Your task to perform on an android device: turn off javascript in the chrome app Image 0: 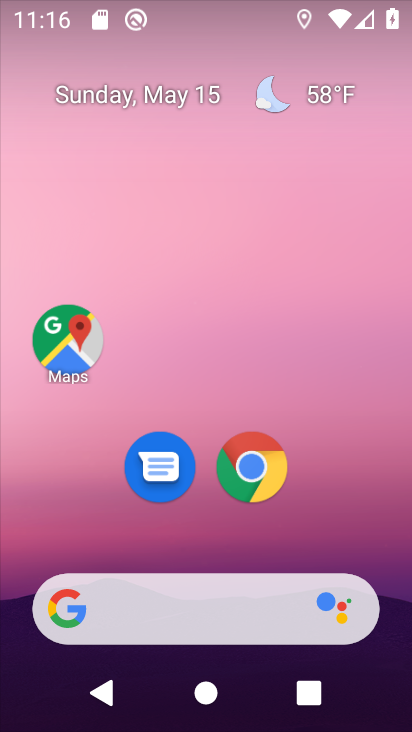
Step 0: press home button
Your task to perform on an android device: turn off javascript in the chrome app Image 1: 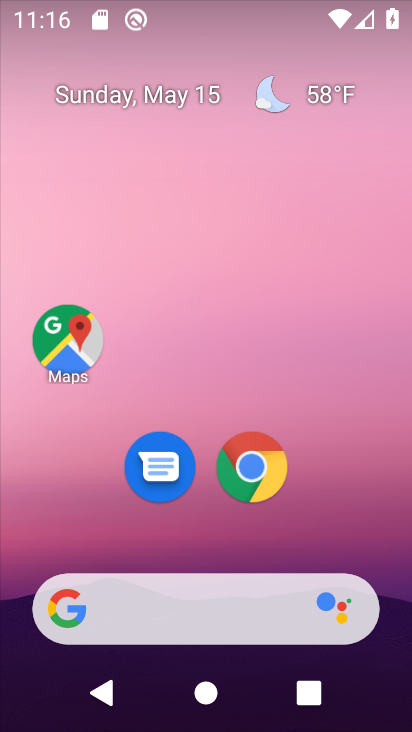
Step 1: drag from (211, 541) to (208, 33)
Your task to perform on an android device: turn off javascript in the chrome app Image 2: 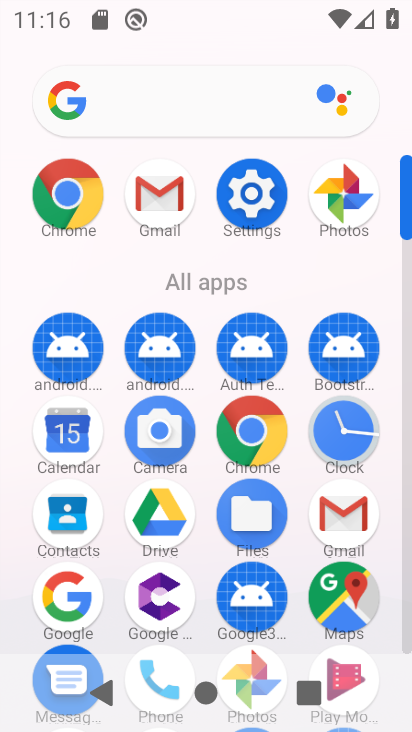
Step 2: click (253, 189)
Your task to perform on an android device: turn off javascript in the chrome app Image 3: 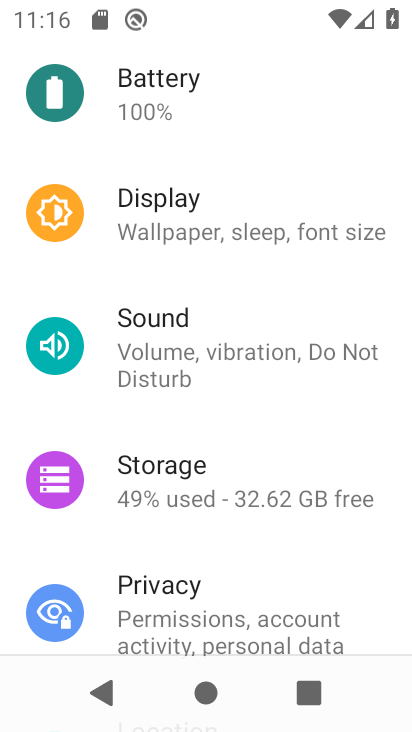
Step 3: press home button
Your task to perform on an android device: turn off javascript in the chrome app Image 4: 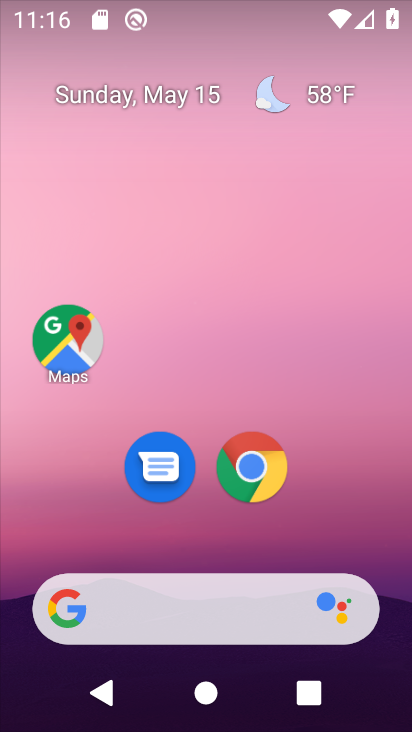
Step 4: click (247, 463)
Your task to perform on an android device: turn off javascript in the chrome app Image 5: 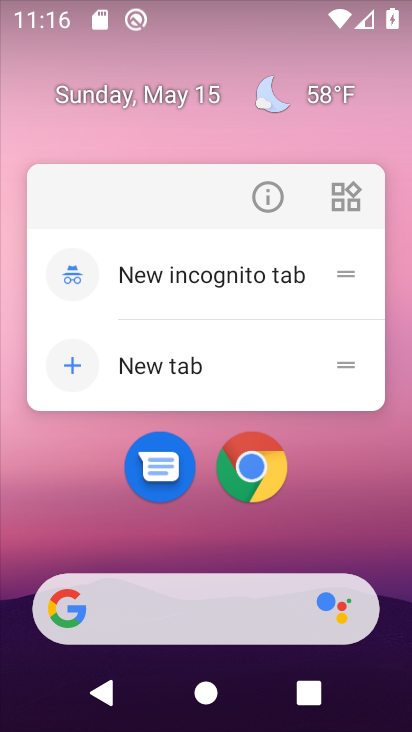
Step 5: click (248, 459)
Your task to perform on an android device: turn off javascript in the chrome app Image 6: 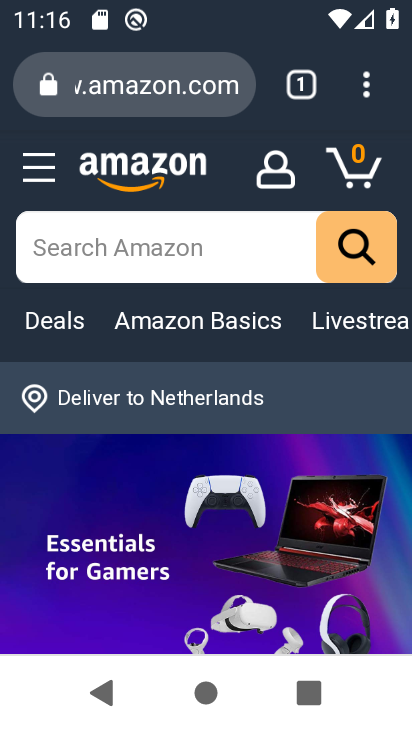
Step 6: click (354, 84)
Your task to perform on an android device: turn off javascript in the chrome app Image 7: 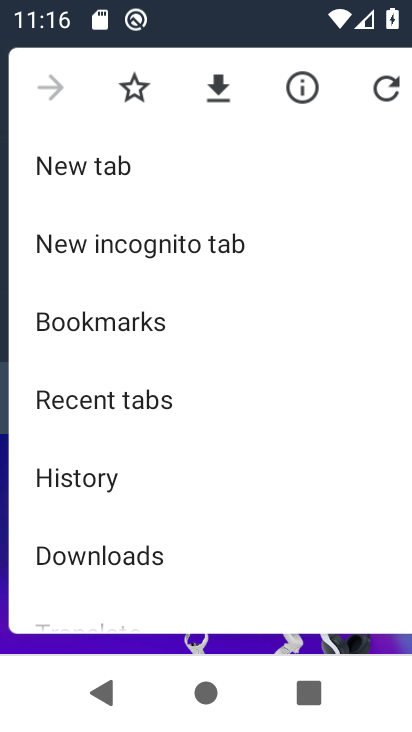
Step 7: drag from (192, 582) to (191, 135)
Your task to perform on an android device: turn off javascript in the chrome app Image 8: 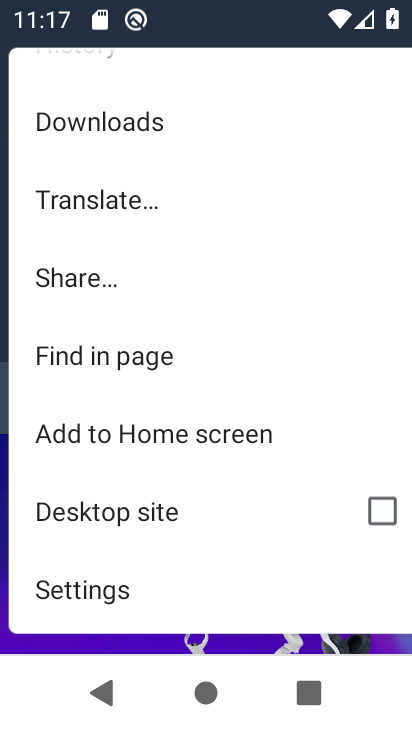
Step 8: click (136, 582)
Your task to perform on an android device: turn off javascript in the chrome app Image 9: 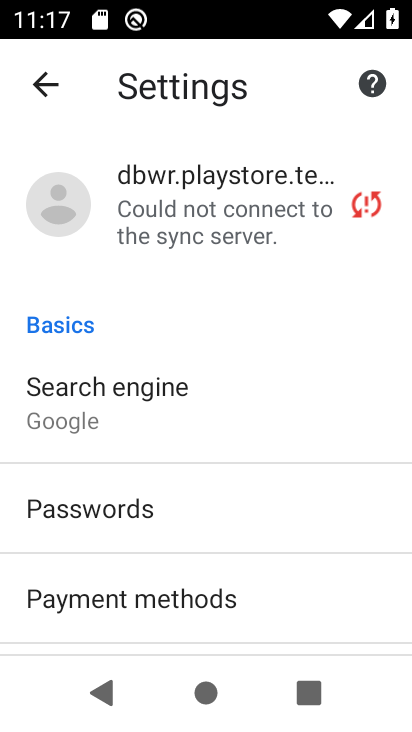
Step 9: drag from (266, 616) to (257, 222)
Your task to perform on an android device: turn off javascript in the chrome app Image 10: 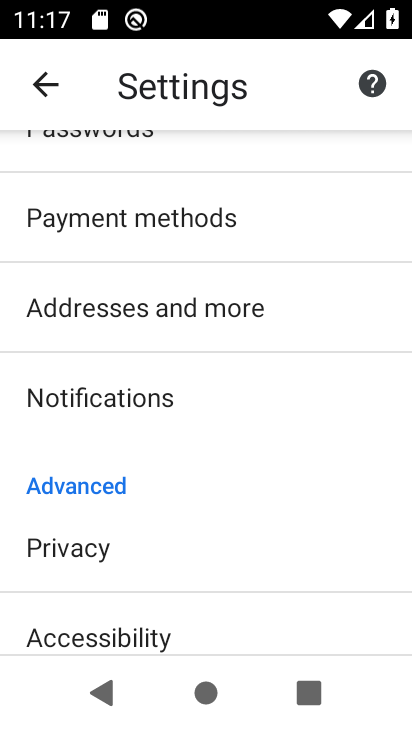
Step 10: drag from (206, 615) to (195, 191)
Your task to perform on an android device: turn off javascript in the chrome app Image 11: 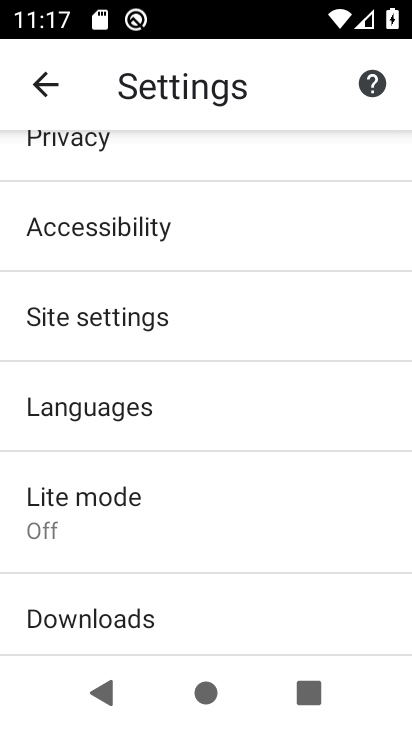
Step 11: click (175, 303)
Your task to perform on an android device: turn off javascript in the chrome app Image 12: 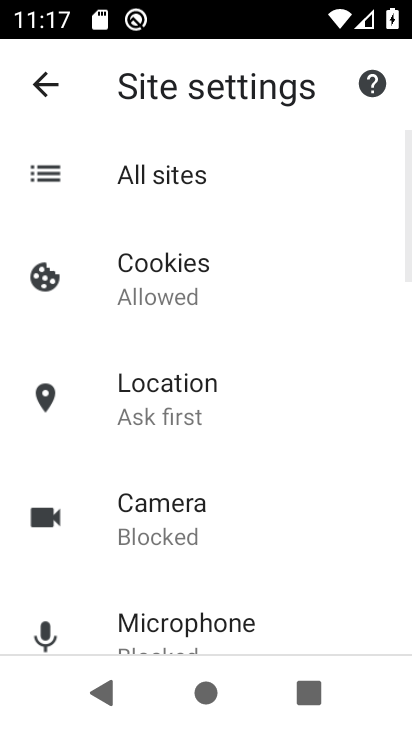
Step 12: drag from (218, 612) to (222, 107)
Your task to perform on an android device: turn off javascript in the chrome app Image 13: 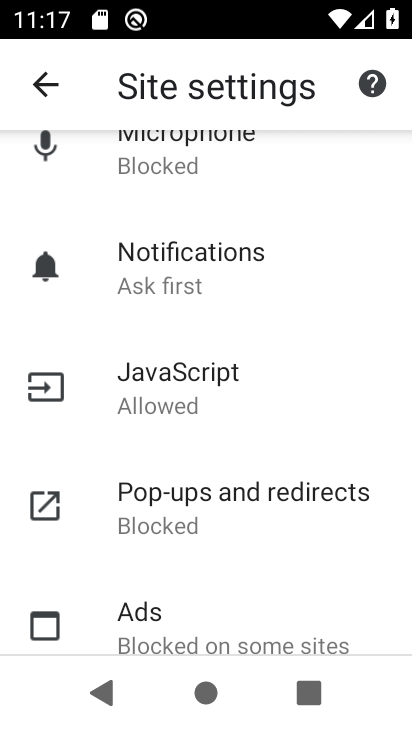
Step 13: click (206, 391)
Your task to perform on an android device: turn off javascript in the chrome app Image 14: 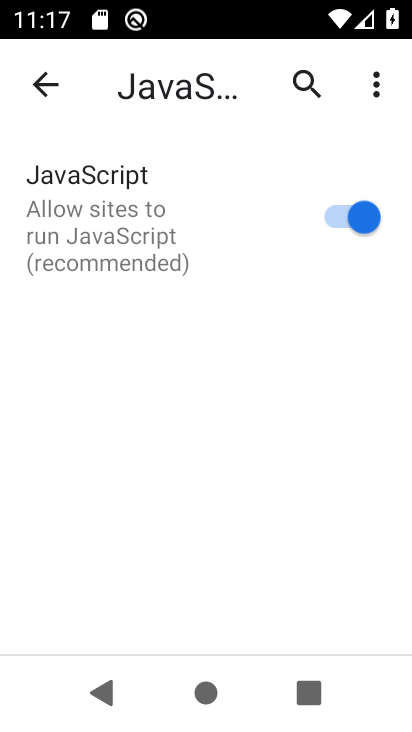
Step 14: click (342, 216)
Your task to perform on an android device: turn off javascript in the chrome app Image 15: 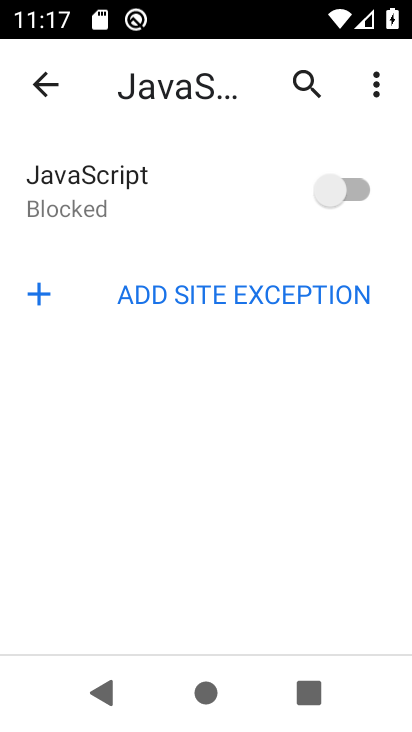
Step 15: task complete